Your task to perform on an android device: Open Youtube and go to "Your channel" Image 0: 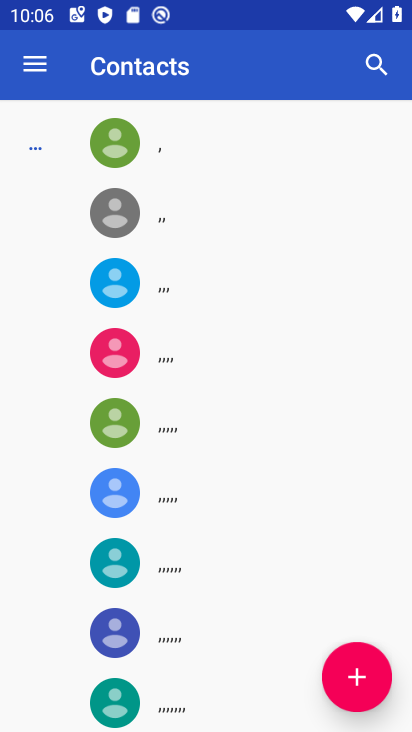
Step 0: press home button
Your task to perform on an android device: Open Youtube and go to "Your channel" Image 1: 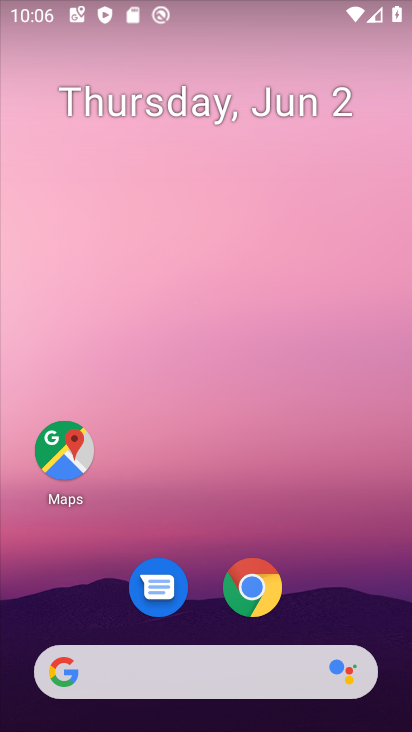
Step 1: drag from (337, 571) to (380, 143)
Your task to perform on an android device: Open Youtube and go to "Your channel" Image 2: 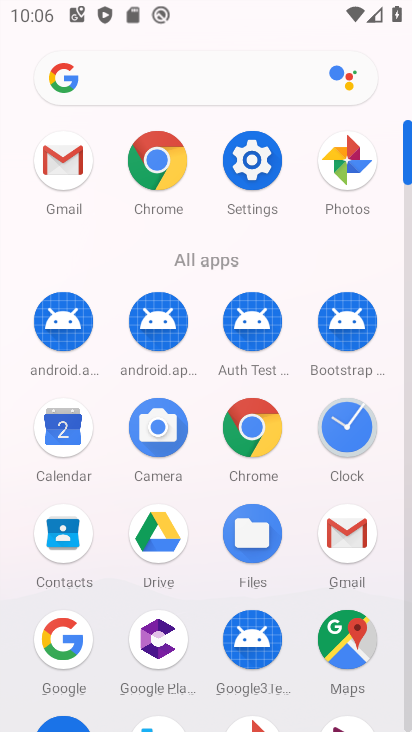
Step 2: drag from (283, 269) to (281, 67)
Your task to perform on an android device: Open Youtube and go to "Your channel" Image 3: 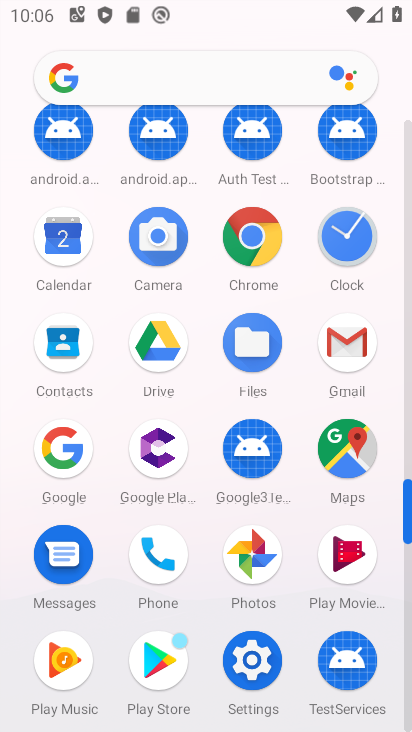
Step 3: drag from (304, 510) to (299, 275)
Your task to perform on an android device: Open Youtube and go to "Your channel" Image 4: 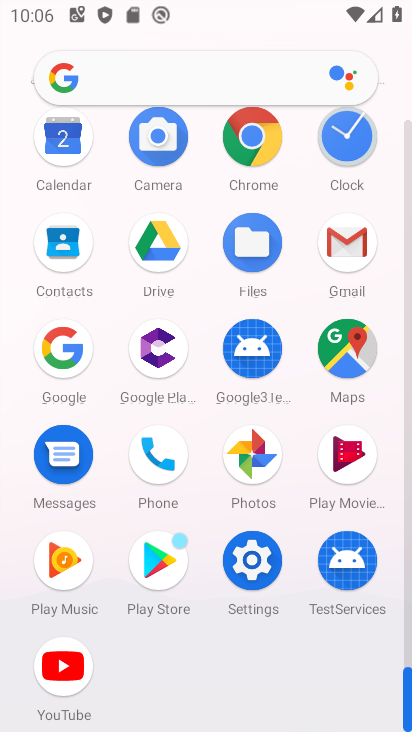
Step 4: click (77, 649)
Your task to perform on an android device: Open Youtube and go to "Your channel" Image 5: 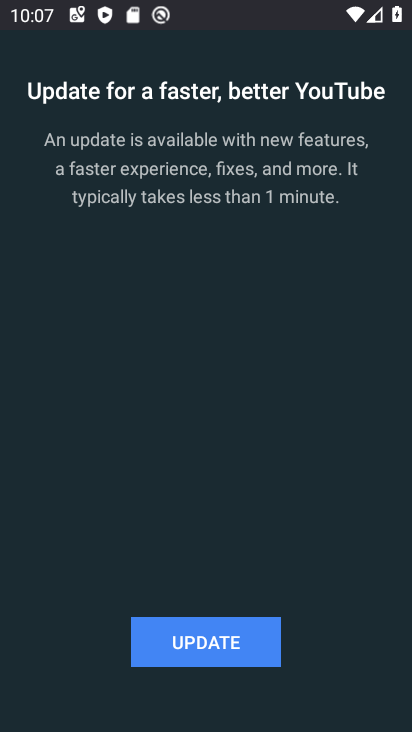
Step 5: click (201, 638)
Your task to perform on an android device: Open Youtube and go to "Your channel" Image 6: 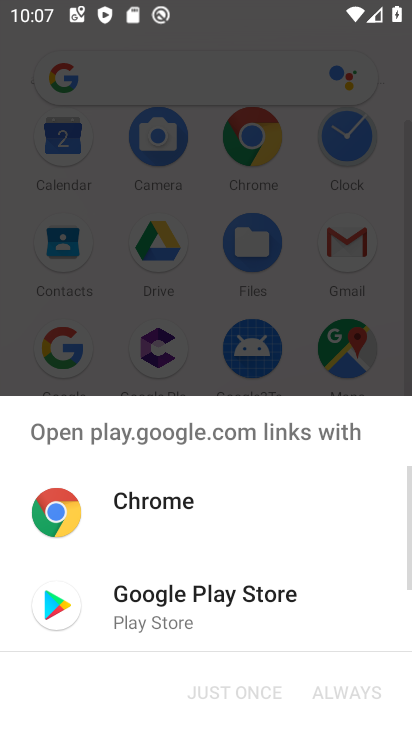
Step 6: click (169, 614)
Your task to perform on an android device: Open Youtube and go to "Your channel" Image 7: 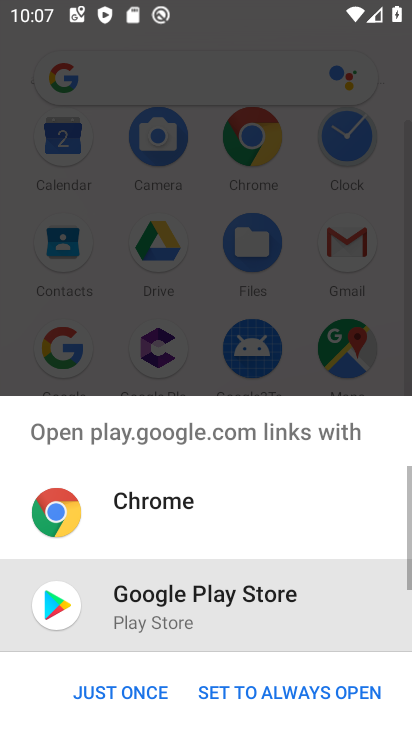
Step 7: click (138, 699)
Your task to perform on an android device: Open Youtube and go to "Your channel" Image 8: 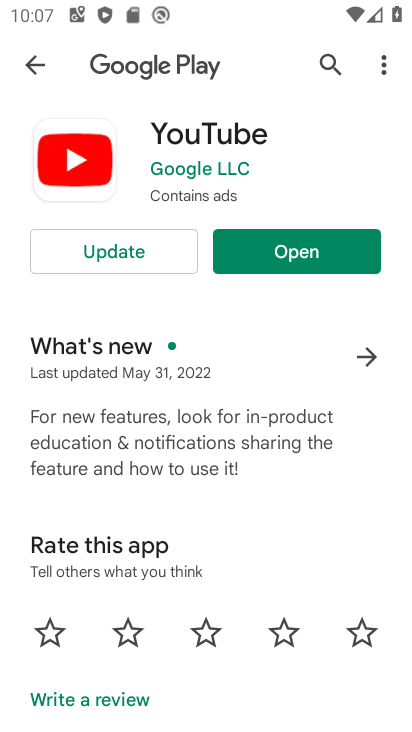
Step 8: click (67, 260)
Your task to perform on an android device: Open Youtube and go to "Your channel" Image 9: 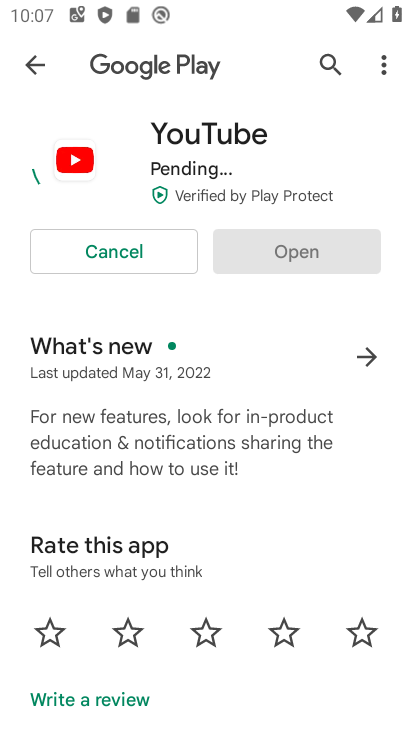
Step 9: click (36, 64)
Your task to perform on an android device: Open Youtube and go to "Your channel" Image 10: 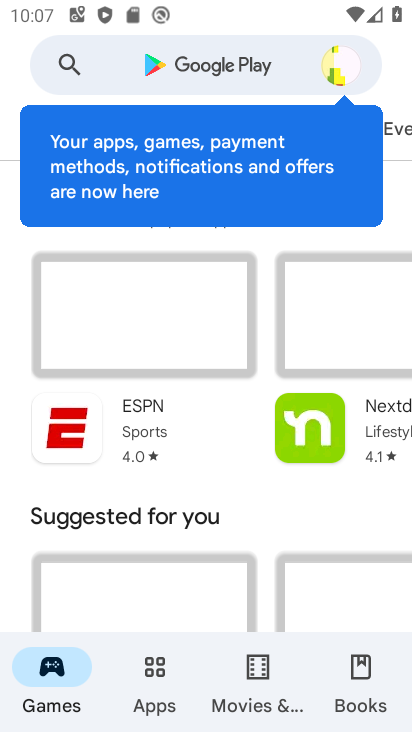
Step 10: click (327, 71)
Your task to perform on an android device: Open Youtube and go to "Your channel" Image 11: 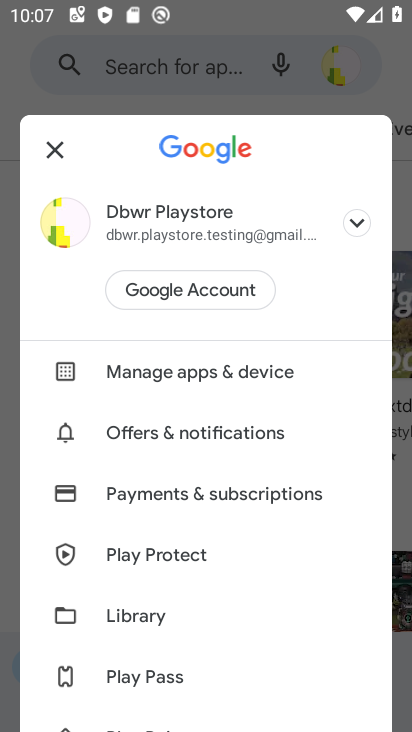
Step 11: click (212, 378)
Your task to perform on an android device: Open Youtube and go to "Your channel" Image 12: 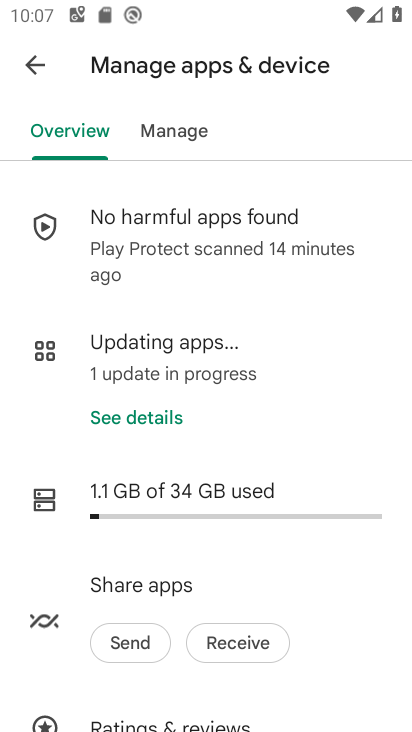
Step 12: click (188, 374)
Your task to perform on an android device: Open Youtube and go to "Your channel" Image 13: 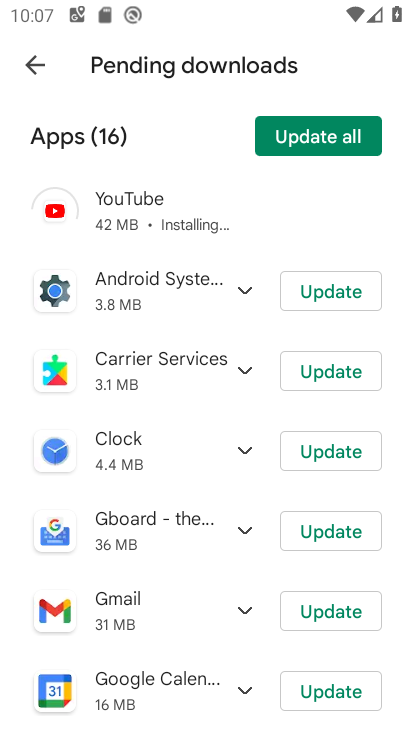
Step 13: click (324, 146)
Your task to perform on an android device: Open Youtube and go to "Your channel" Image 14: 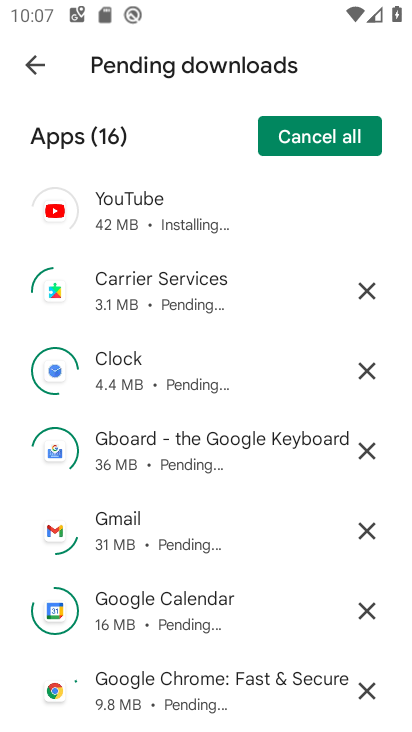
Step 14: drag from (174, 583) to (176, 67)
Your task to perform on an android device: Open Youtube and go to "Your channel" Image 15: 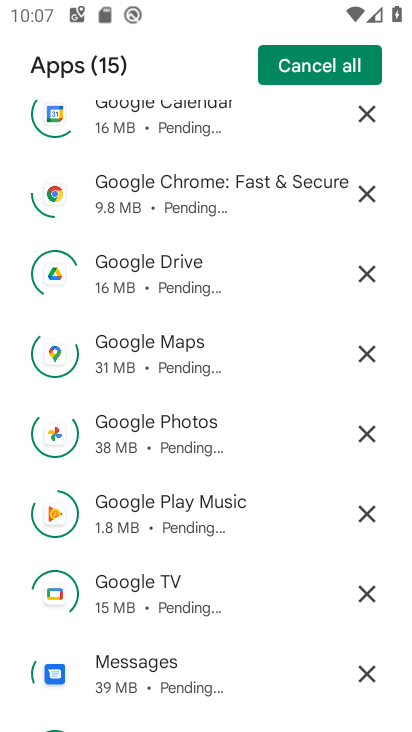
Step 15: drag from (120, 641) to (120, 711)
Your task to perform on an android device: Open Youtube and go to "Your channel" Image 16: 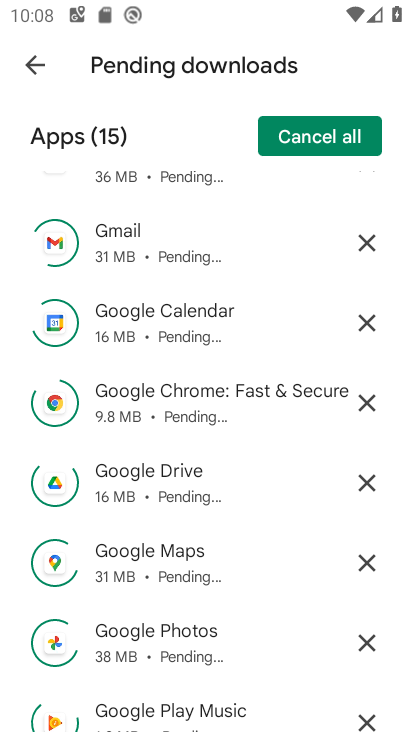
Step 16: drag from (233, 619) to (373, 169)
Your task to perform on an android device: Open Youtube and go to "Your channel" Image 17: 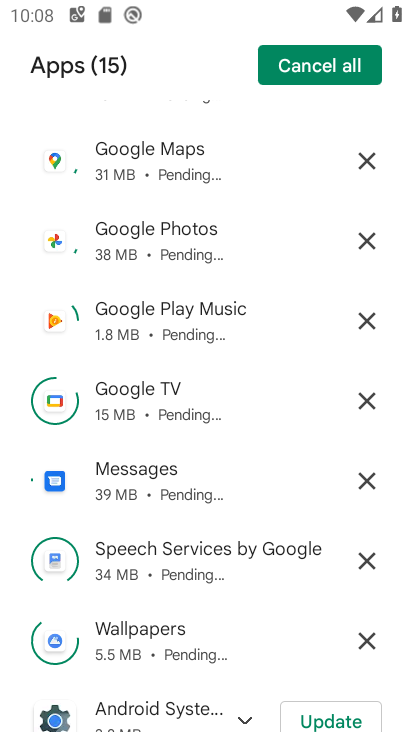
Step 17: drag from (272, 592) to (164, 729)
Your task to perform on an android device: Open Youtube and go to "Your channel" Image 18: 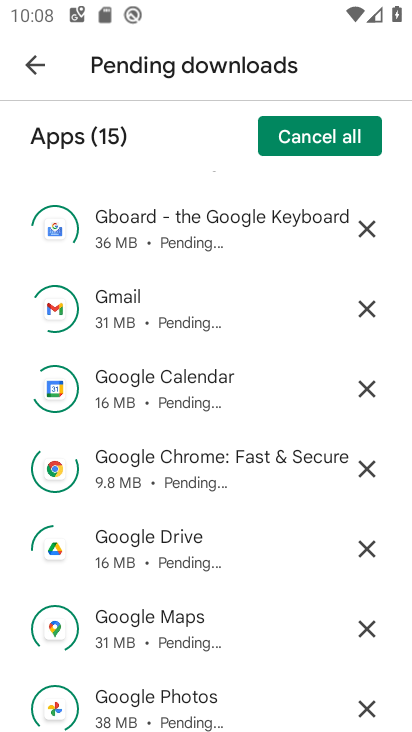
Step 18: drag from (199, 287) to (105, 667)
Your task to perform on an android device: Open Youtube and go to "Your channel" Image 19: 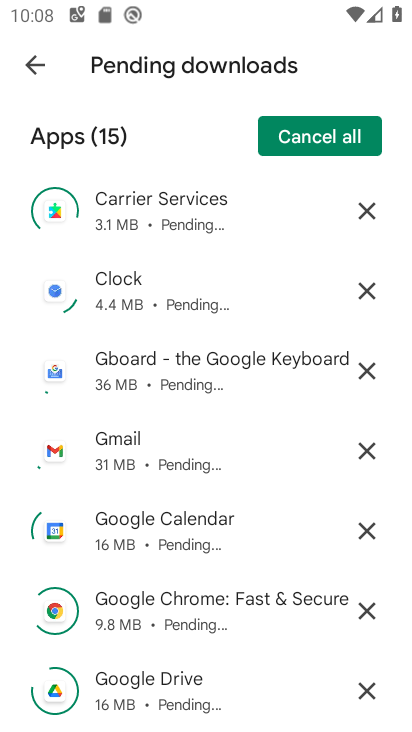
Step 19: press back button
Your task to perform on an android device: Open Youtube and go to "Your channel" Image 20: 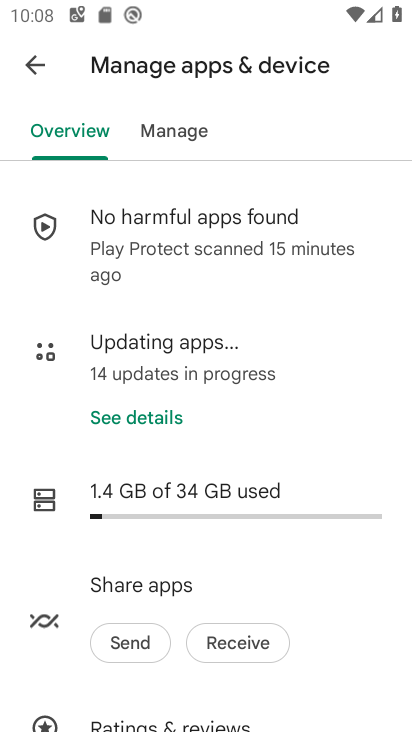
Step 20: press home button
Your task to perform on an android device: Open Youtube and go to "Your channel" Image 21: 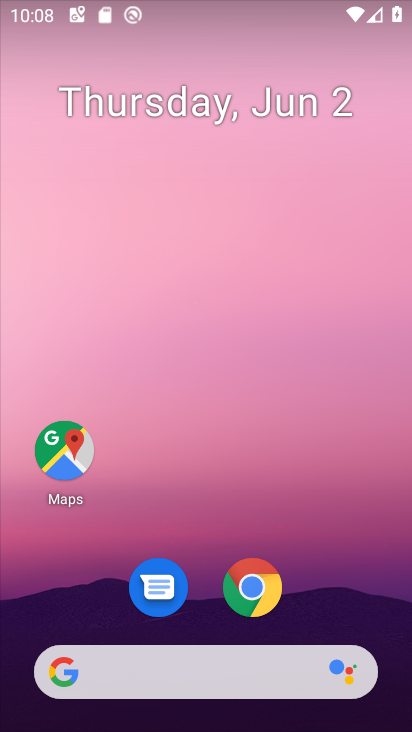
Step 21: drag from (197, 530) to (172, 67)
Your task to perform on an android device: Open Youtube and go to "Your channel" Image 22: 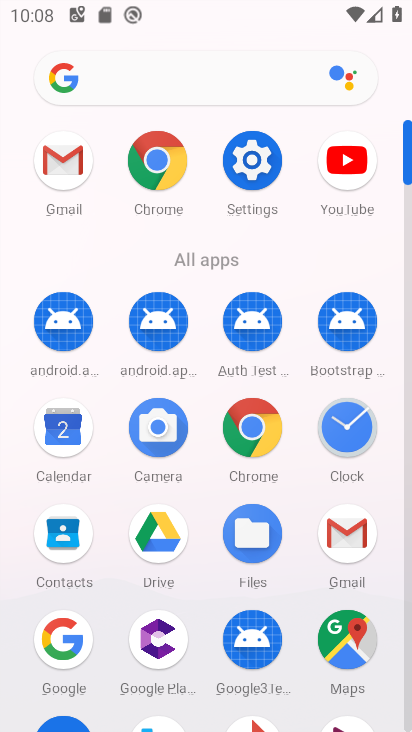
Step 22: click (336, 154)
Your task to perform on an android device: Open Youtube and go to "Your channel" Image 23: 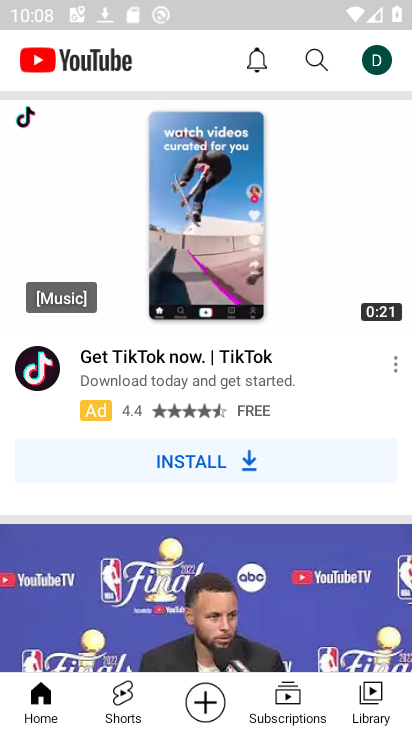
Step 23: click (376, 72)
Your task to perform on an android device: Open Youtube and go to "Your channel" Image 24: 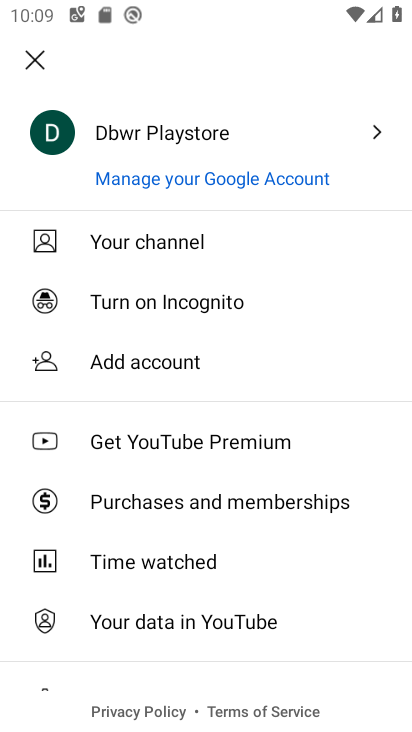
Step 24: click (203, 230)
Your task to perform on an android device: Open Youtube and go to "Your channel" Image 25: 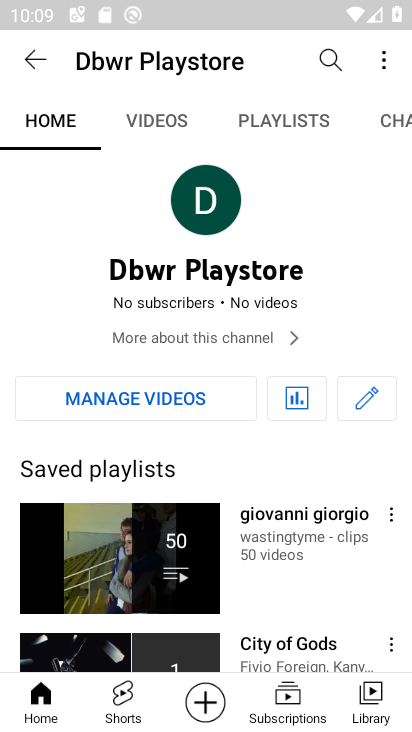
Step 25: task complete